Your task to perform on an android device: turn on the 24-hour format for clock Image 0: 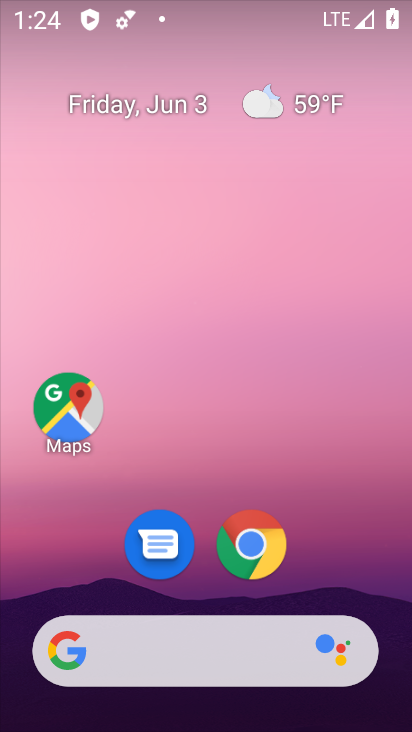
Step 0: drag from (165, 603) to (164, 7)
Your task to perform on an android device: turn on the 24-hour format for clock Image 1: 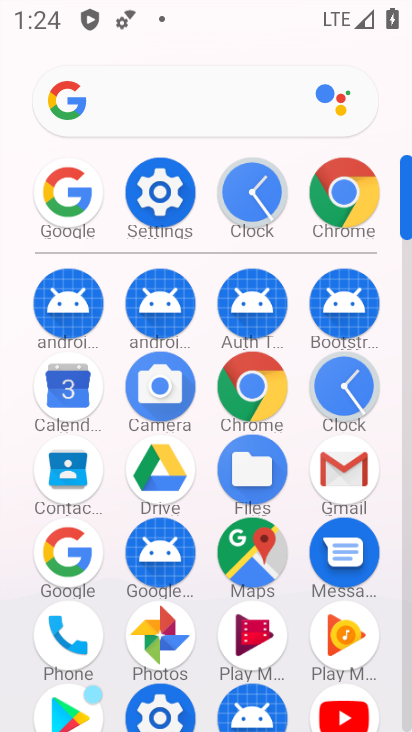
Step 1: click (325, 407)
Your task to perform on an android device: turn on the 24-hour format for clock Image 2: 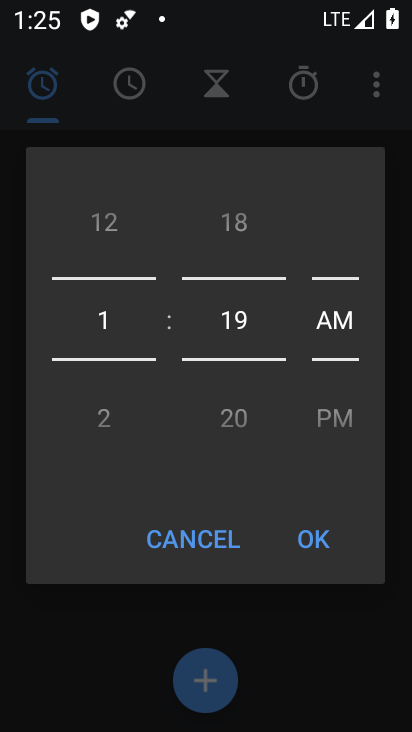
Step 2: press home button
Your task to perform on an android device: turn on the 24-hour format for clock Image 3: 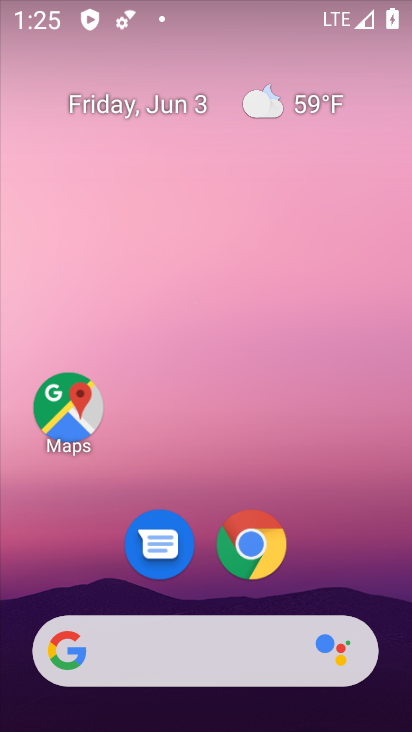
Step 3: drag from (205, 575) to (230, 12)
Your task to perform on an android device: turn on the 24-hour format for clock Image 4: 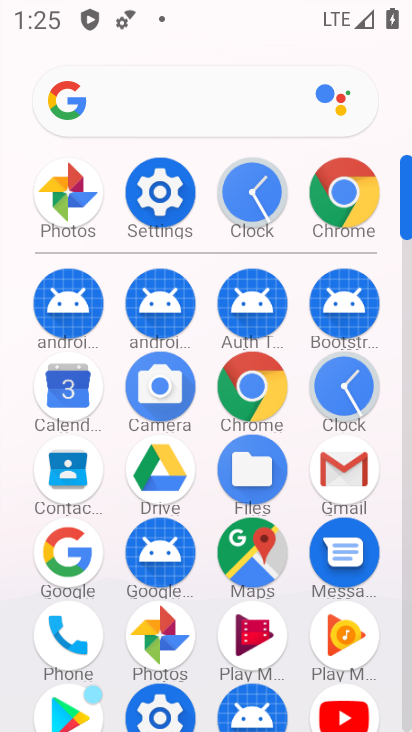
Step 4: click (348, 373)
Your task to perform on an android device: turn on the 24-hour format for clock Image 5: 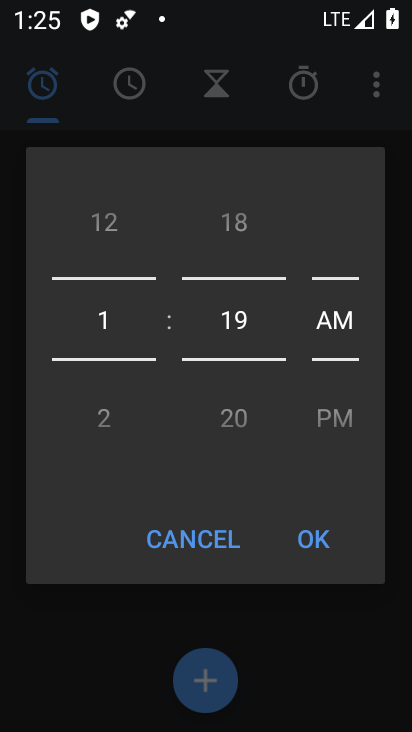
Step 5: click (228, 538)
Your task to perform on an android device: turn on the 24-hour format for clock Image 6: 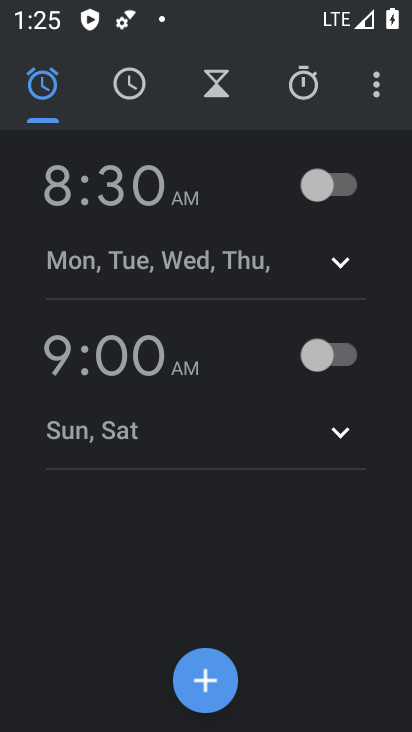
Step 6: click (373, 84)
Your task to perform on an android device: turn on the 24-hour format for clock Image 7: 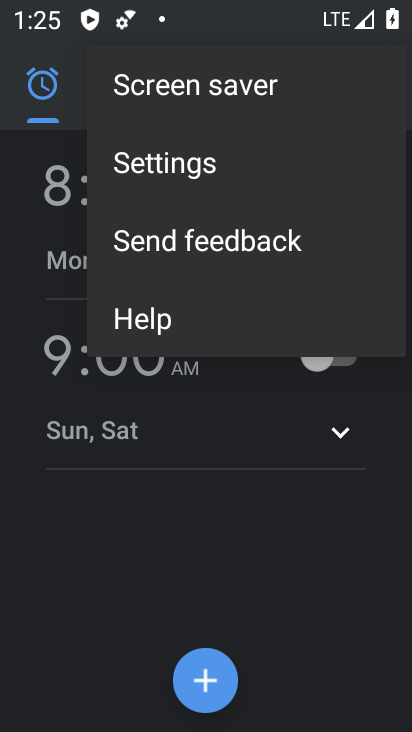
Step 7: click (224, 176)
Your task to perform on an android device: turn on the 24-hour format for clock Image 8: 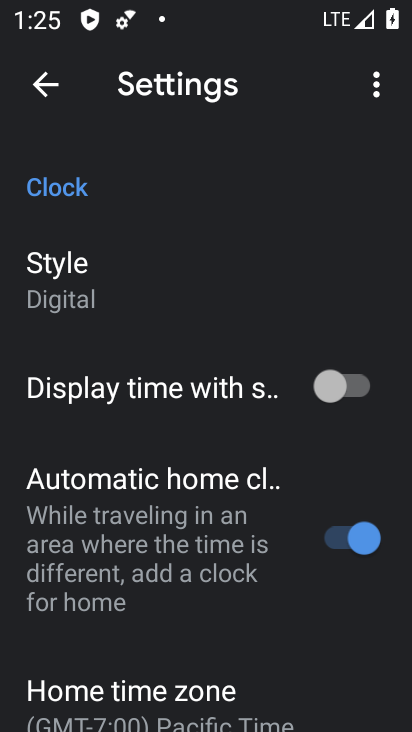
Step 8: drag from (212, 574) to (128, 29)
Your task to perform on an android device: turn on the 24-hour format for clock Image 9: 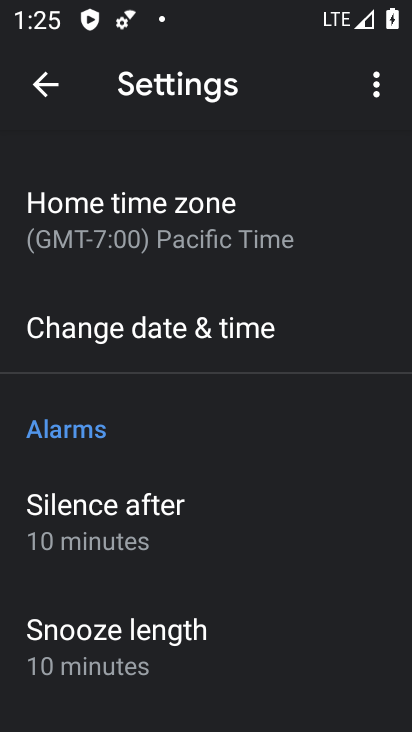
Step 9: click (153, 305)
Your task to perform on an android device: turn on the 24-hour format for clock Image 10: 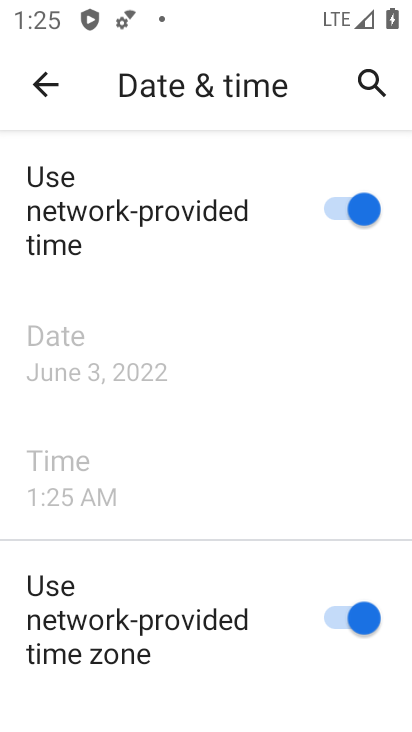
Step 10: drag from (200, 590) to (192, 98)
Your task to perform on an android device: turn on the 24-hour format for clock Image 11: 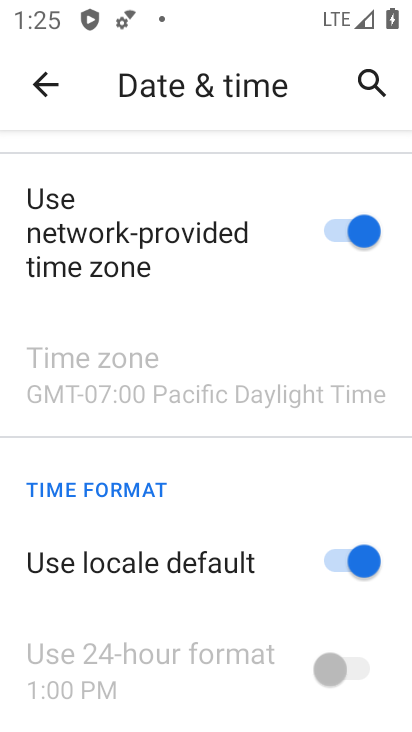
Step 11: click (356, 567)
Your task to perform on an android device: turn on the 24-hour format for clock Image 12: 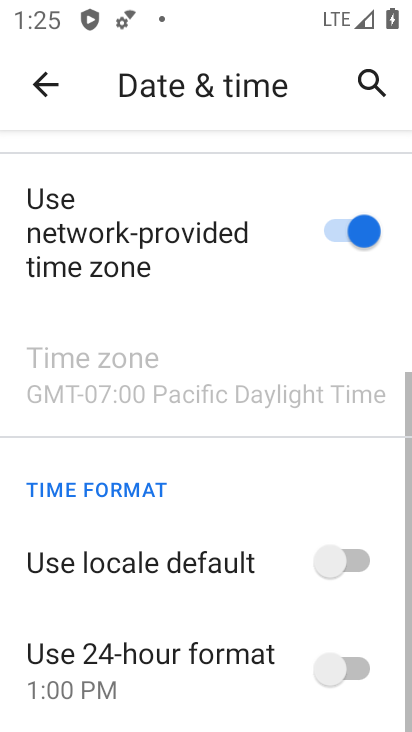
Step 12: click (352, 685)
Your task to perform on an android device: turn on the 24-hour format for clock Image 13: 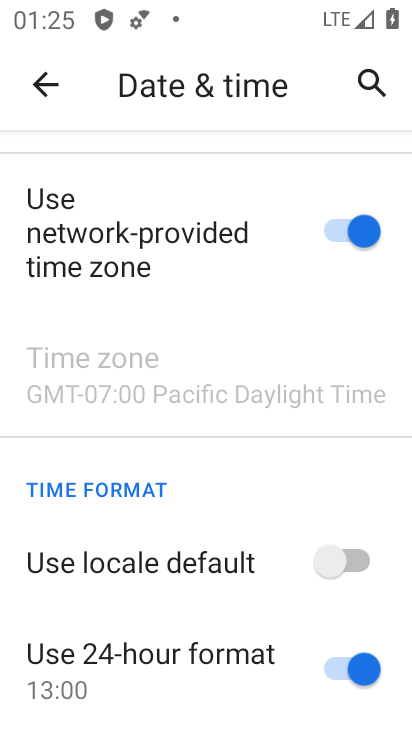
Step 13: task complete